Your task to perform on an android device: turn on notifications settings in the gmail app Image 0: 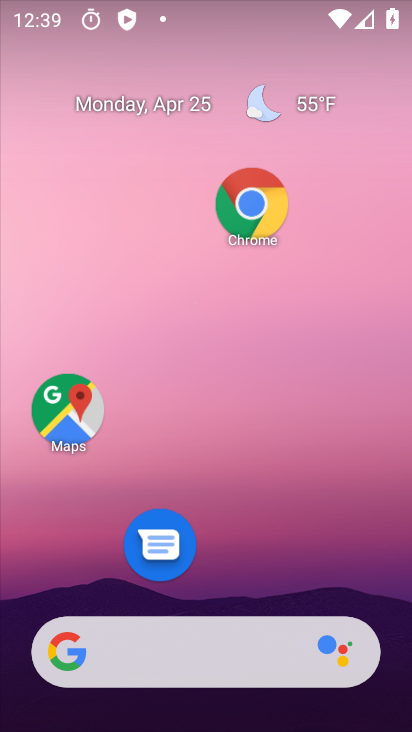
Step 0: drag from (323, 682) to (375, 126)
Your task to perform on an android device: turn on notifications settings in the gmail app Image 1: 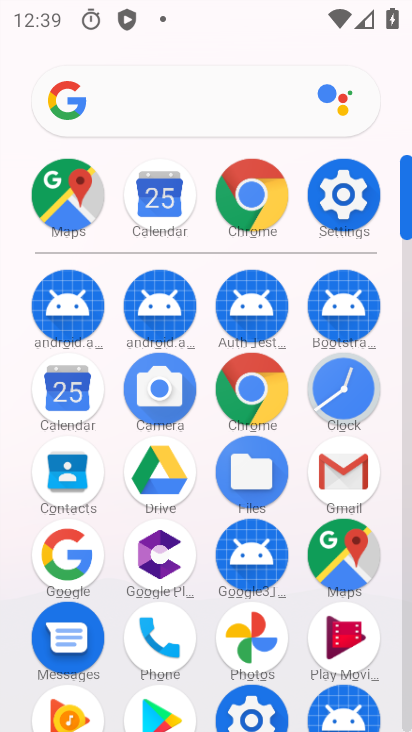
Step 1: click (347, 467)
Your task to perform on an android device: turn on notifications settings in the gmail app Image 2: 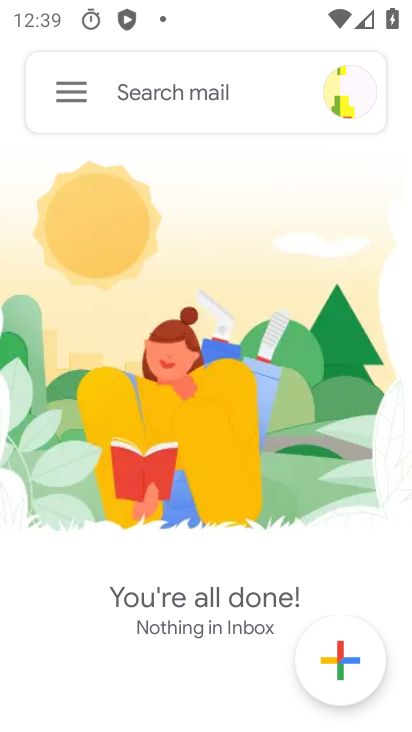
Step 2: click (84, 88)
Your task to perform on an android device: turn on notifications settings in the gmail app Image 3: 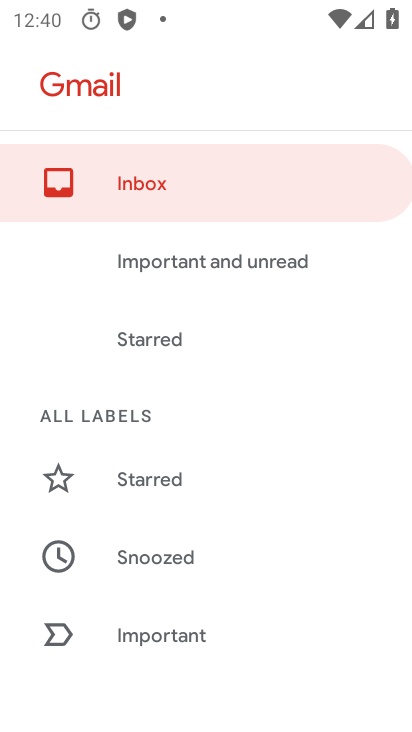
Step 3: drag from (145, 582) to (202, 307)
Your task to perform on an android device: turn on notifications settings in the gmail app Image 4: 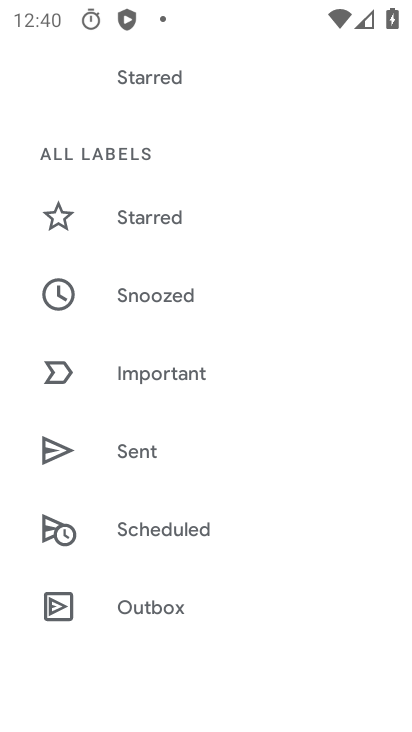
Step 4: drag from (146, 582) to (191, 356)
Your task to perform on an android device: turn on notifications settings in the gmail app Image 5: 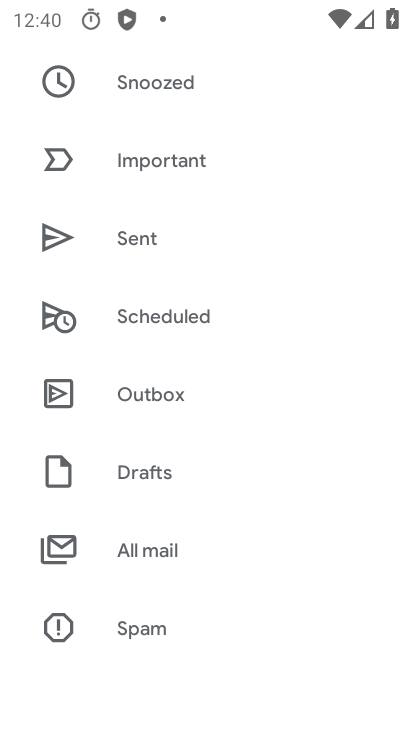
Step 5: drag from (142, 590) to (174, 407)
Your task to perform on an android device: turn on notifications settings in the gmail app Image 6: 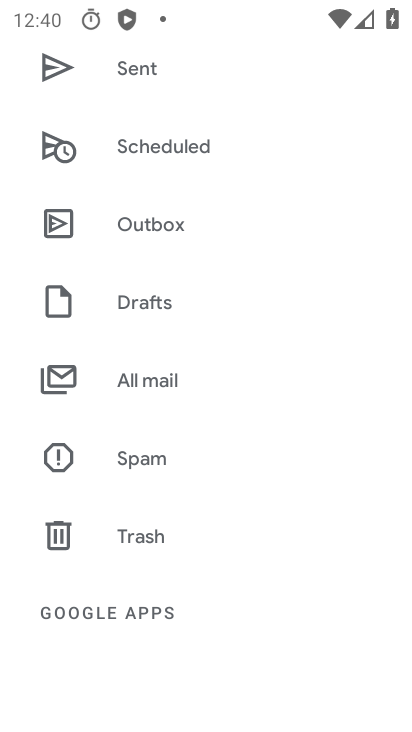
Step 6: drag from (149, 498) to (174, 406)
Your task to perform on an android device: turn on notifications settings in the gmail app Image 7: 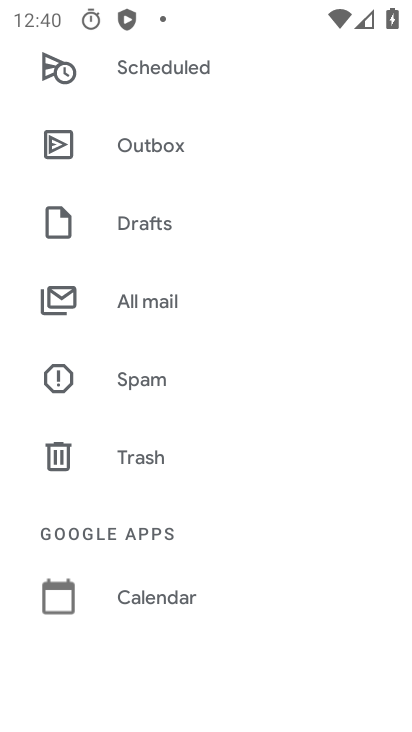
Step 7: drag from (148, 481) to (166, 344)
Your task to perform on an android device: turn on notifications settings in the gmail app Image 8: 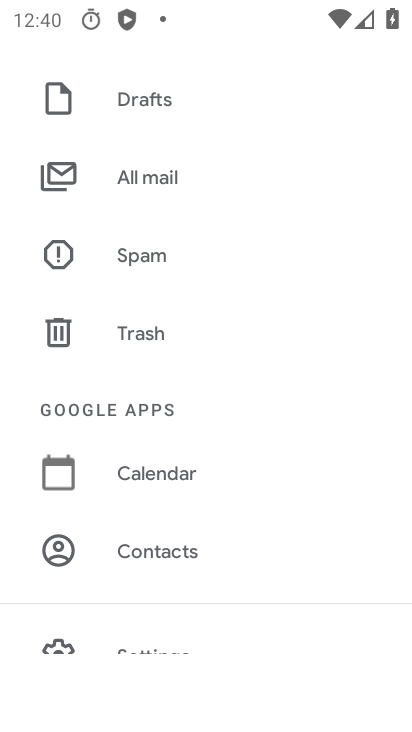
Step 8: click (133, 637)
Your task to perform on an android device: turn on notifications settings in the gmail app Image 9: 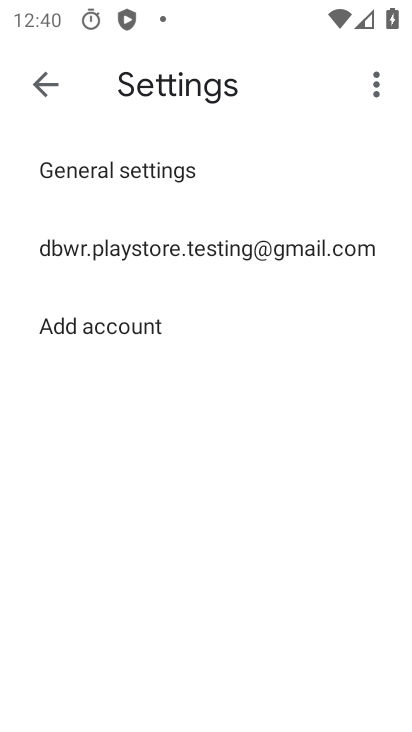
Step 9: click (147, 216)
Your task to perform on an android device: turn on notifications settings in the gmail app Image 10: 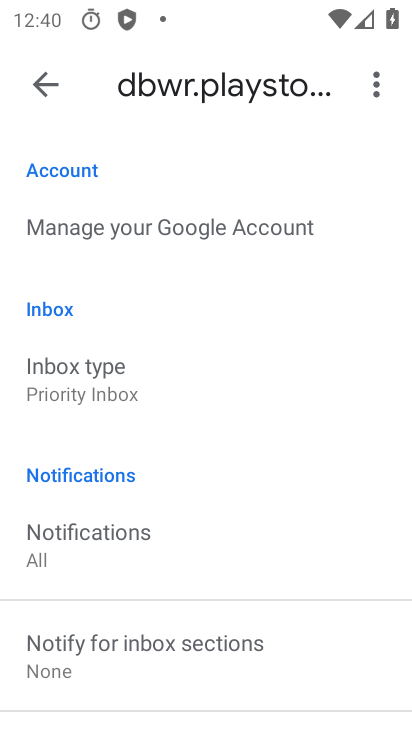
Step 10: click (101, 547)
Your task to perform on an android device: turn on notifications settings in the gmail app Image 11: 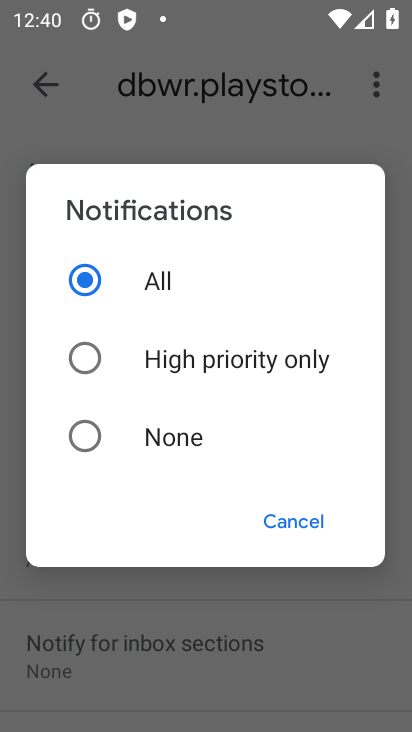
Step 11: task complete